Your task to perform on an android device: change notifications settings Image 0: 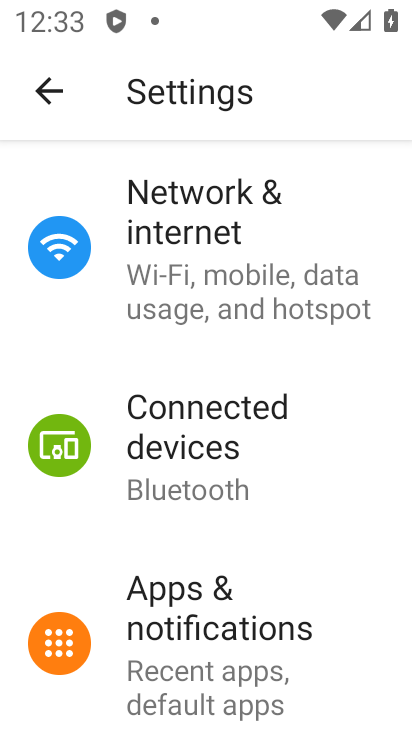
Step 0: click (206, 630)
Your task to perform on an android device: change notifications settings Image 1: 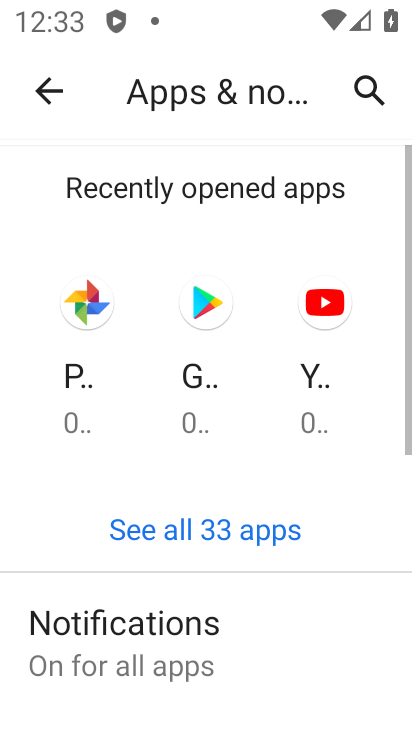
Step 1: drag from (191, 654) to (198, 401)
Your task to perform on an android device: change notifications settings Image 2: 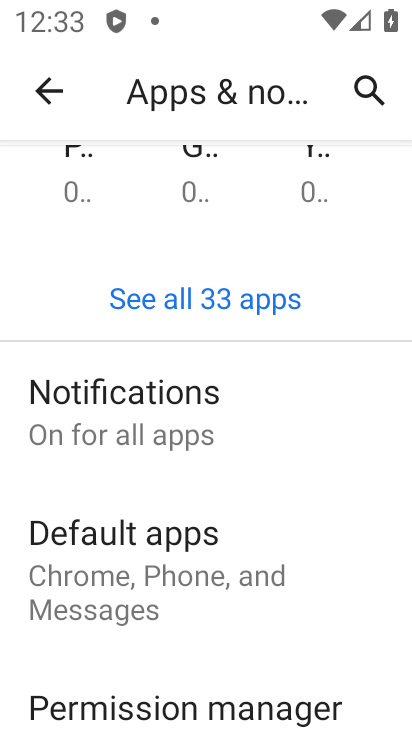
Step 2: click (124, 424)
Your task to perform on an android device: change notifications settings Image 3: 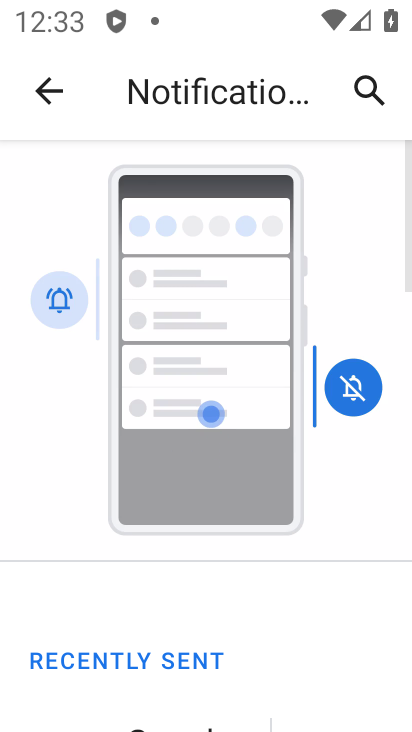
Step 3: drag from (239, 600) to (239, 340)
Your task to perform on an android device: change notifications settings Image 4: 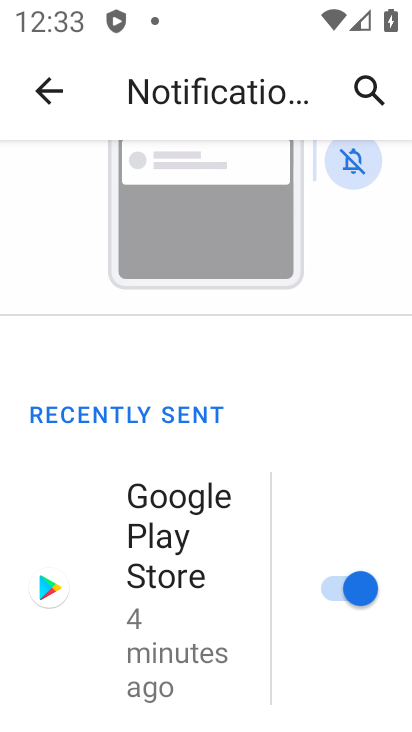
Step 4: drag from (224, 670) to (221, 211)
Your task to perform on an android device: change notifications settings Image 5: 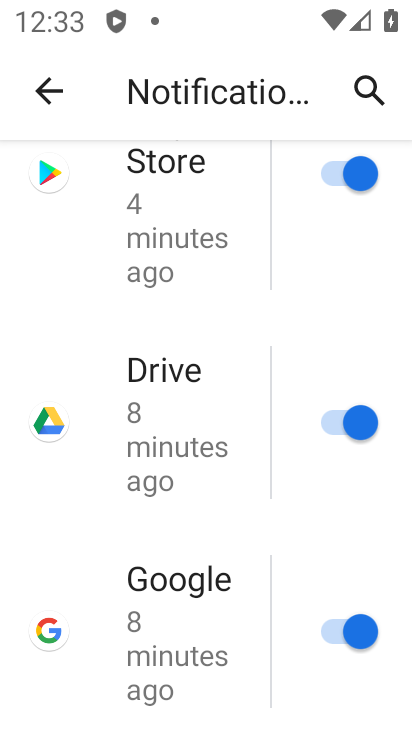
Step 5: drag from (242, 689) to (244, 158)
Your task to perform on an android device: change notifications settings Image 6: 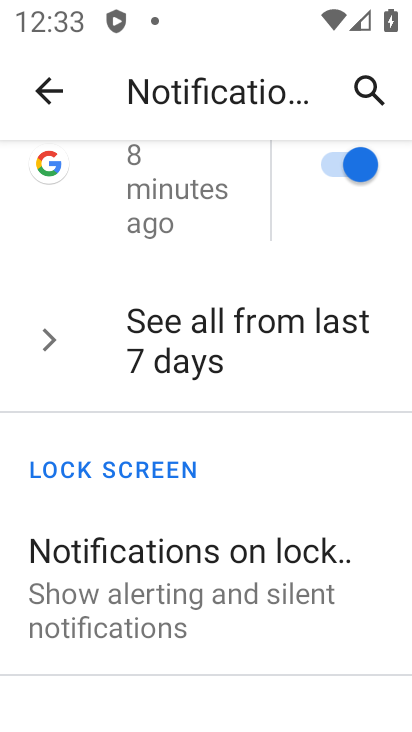
Step 6: drag from (249, 694) to (243, 297)
Your task to perform on an android device: change notifications settings Image 7: 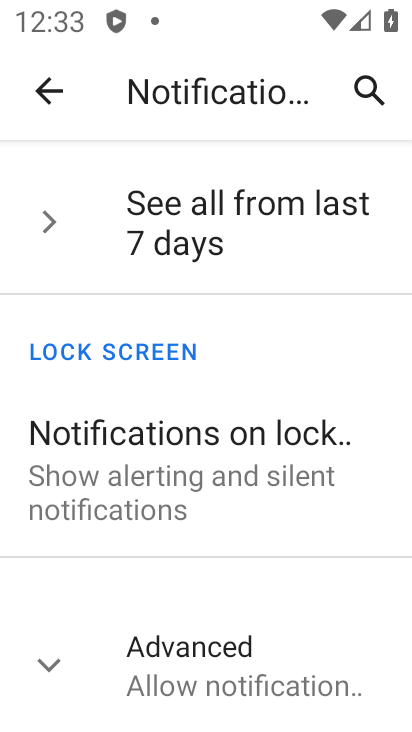
Step 7: click (194, 657)
Your task to perform on an android device: change notifications settings Image 8: 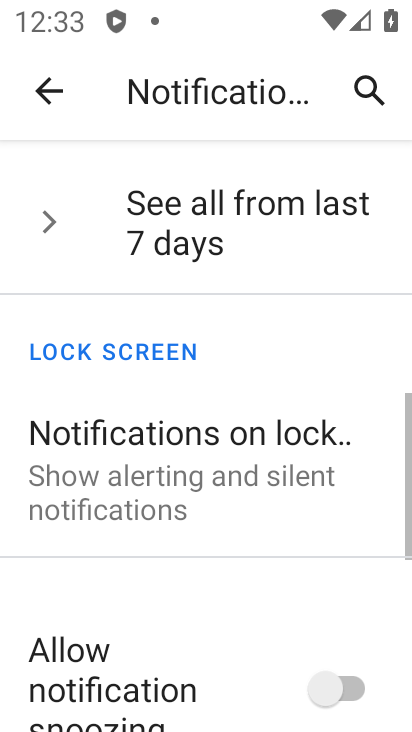
Step 8: drag from (226, 682) to (227, 331)
Your task to perform on an android device: change notifications settings Image 9: 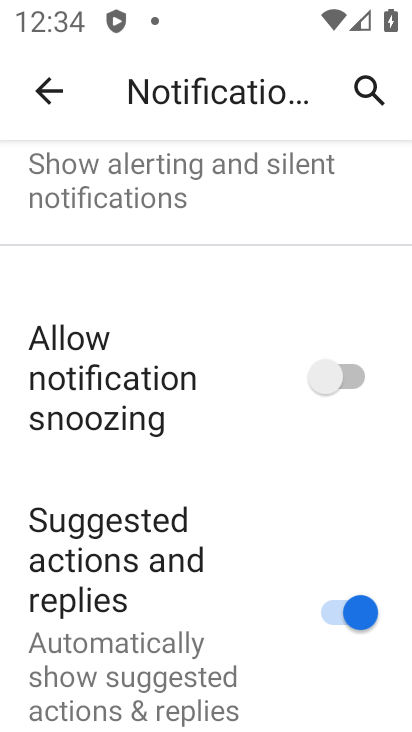
Step 9: click (356, 379)
Your task to perform on an android device: change notifications settings Image 10: 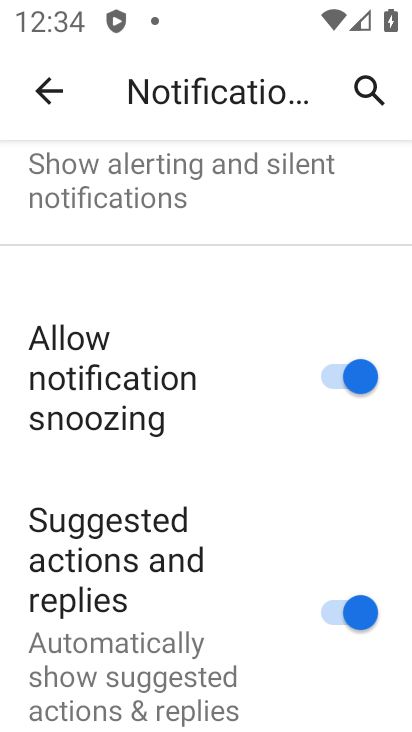
Step 10: task complete